Your task to perform on an android device: turn off location Image 0: 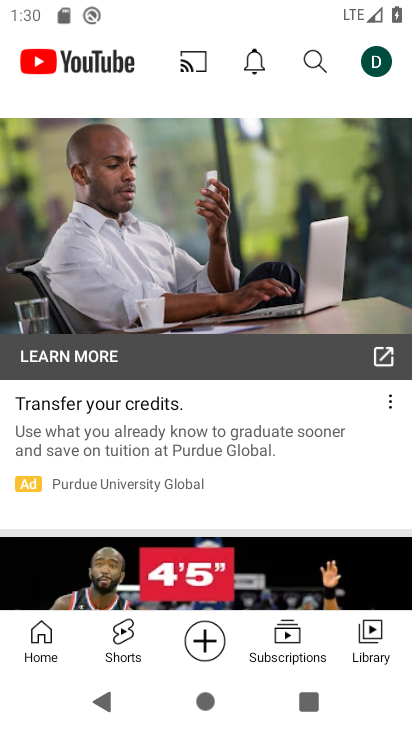
Step 0: press home button
Your task to perform on an android device: turn off location Image 1: 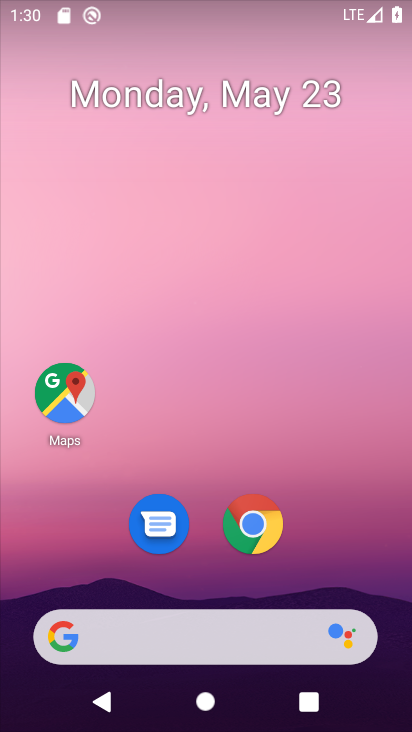
Step 1: drag from (224, 447) to (244, 40)
Your task to perform on an android device: turn off location Image 2: 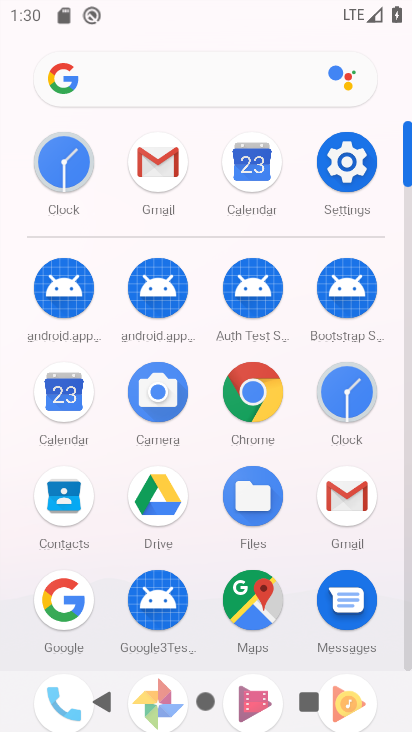
Step 2: click (348, 154)
Your task to perform on an android device: turn off location Image 3: 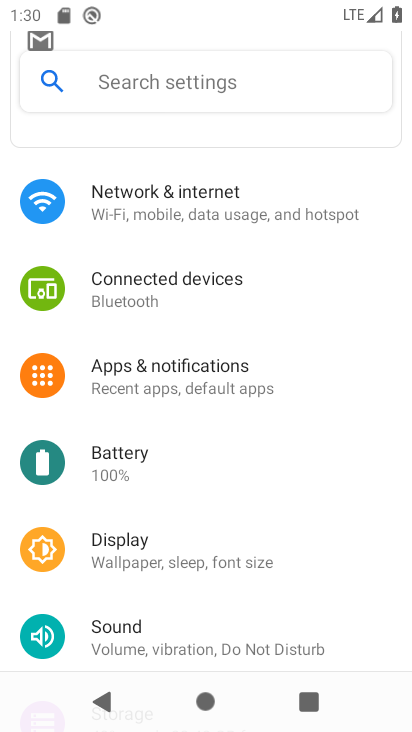
Step 3: drag from (217, 521) to (237, 100)
Your task to perform on an android device: turn off location Image 4: 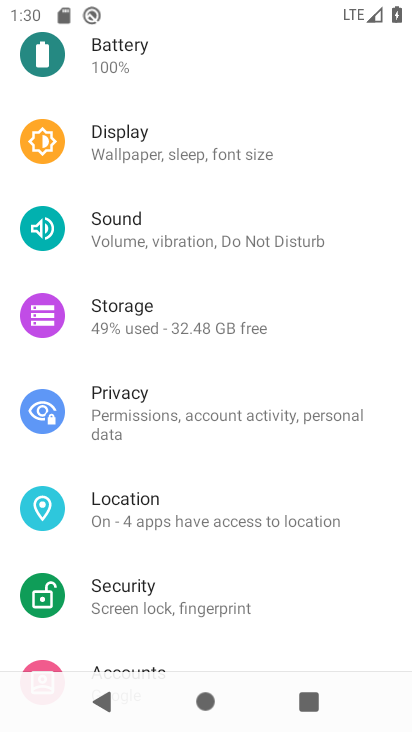
Step 4: click (206, 511)
Your task to perform on an android device: turn off location Image 5: 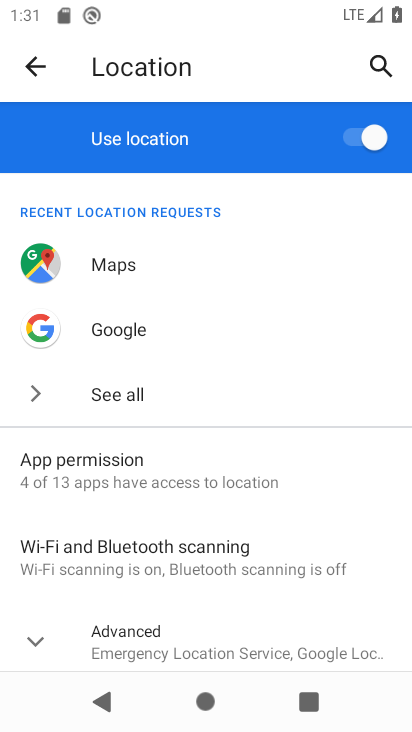
Step 5: click (361, 128)
Your task to perform on an android device: turn off location Image 6: 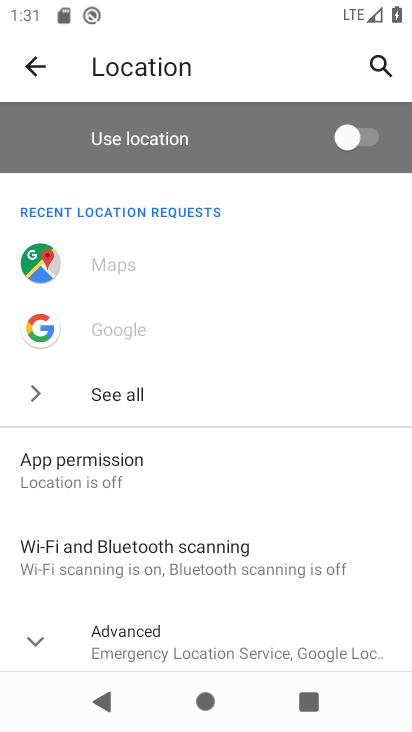
Step 6: task complete